Your task to perform on an android device: Go to battery settings Image 0: 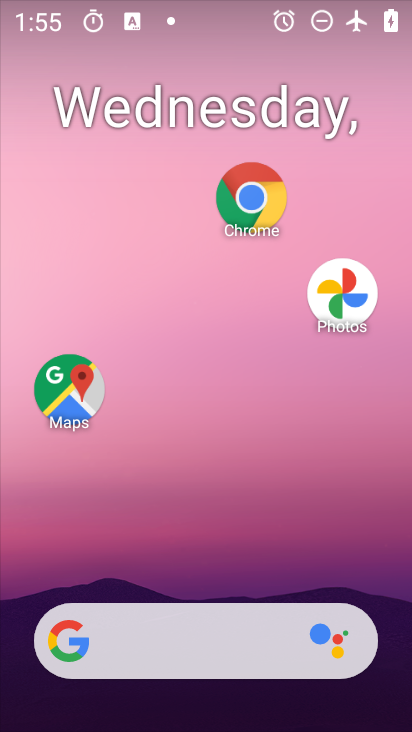
Step 0: drag from (219, 656) to (259, 322)
Your task to perform on an android device: Go to battery settings Image 1: 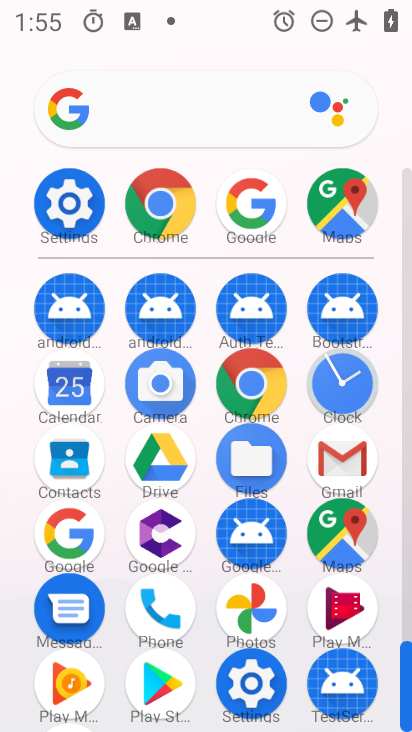
Step 1: drag from (284, 554) to (330, 362)
Your task to perform on an android device: Go to battery settings Image 2: 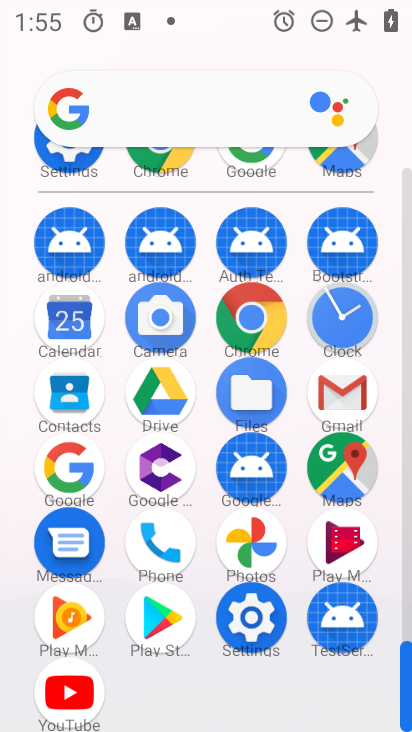
Step 2: click (246, 633)
Your task to perform on an android device: Go to battery settings Image 3: 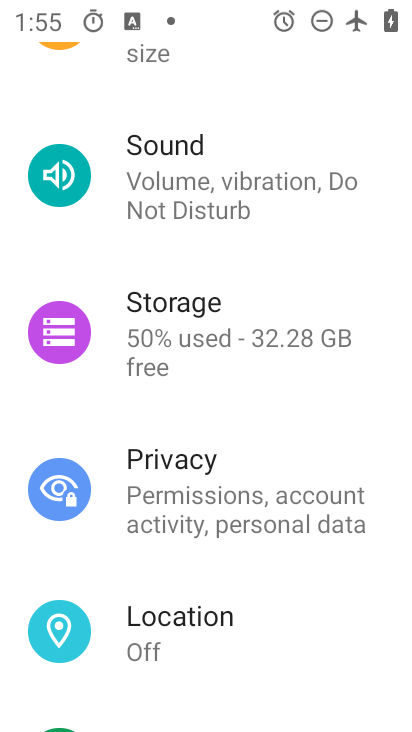
Step 3: drag from (245, 619) to (338, 250)
Your task to perform on an android device: Go to battery settings Image 4: 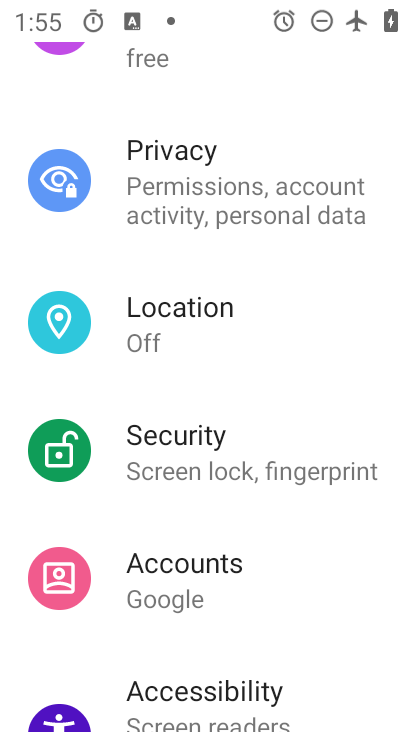
Step 4: drag from (271, 294) to (259, 723)
Your task to perform on an android device: Go to battery settings Image 5: 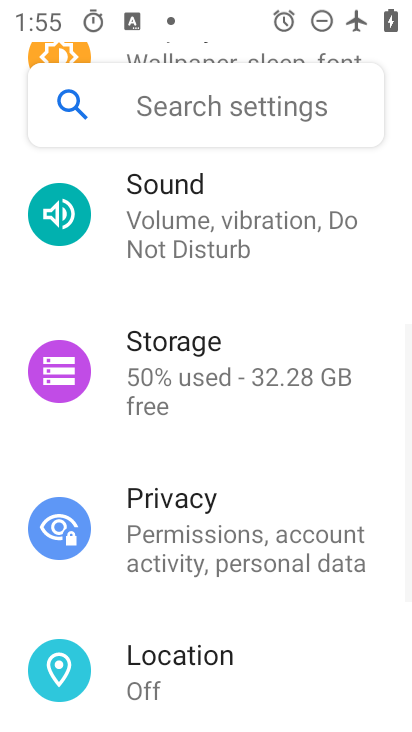
Step 5: drag from (248, 354) to (256, 679)
Your task to perform on an android device: Go to battery settings Image 6: 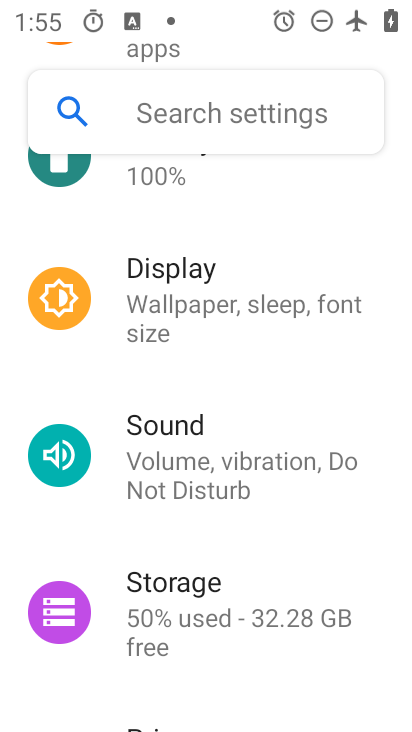
Step 6: drag from (255, 356) to (265, 629)
Your task to perform on an android device: Go to battery settings Image 7: 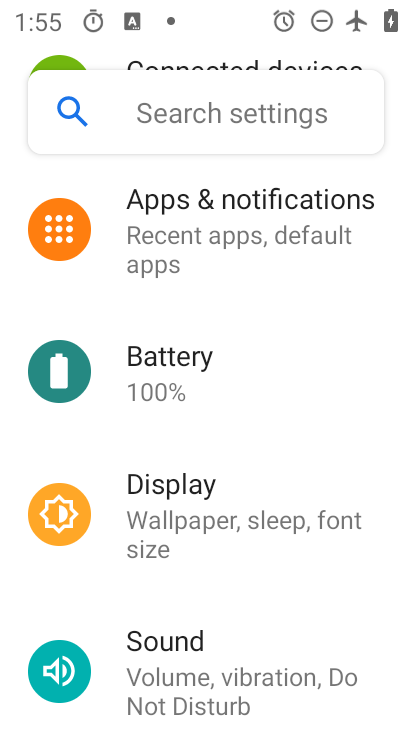
Step 7: click (261, 371)
Your task to perform on an android device: Go to battery settings Image 8: 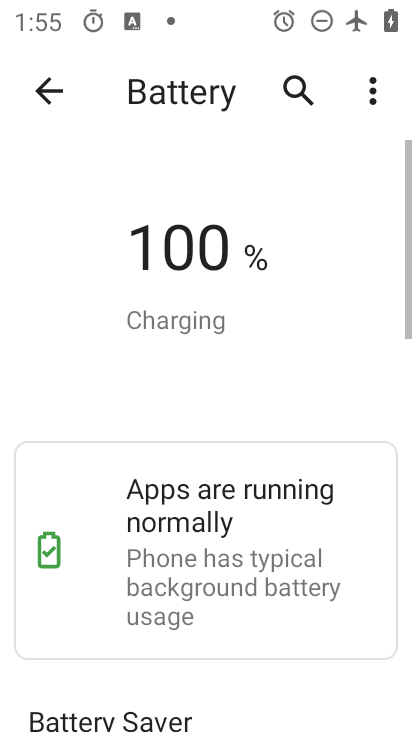
Step 8: task complete